Your task to perform on an android device: open app "Google Keep" (install if not already installed) Image 0: 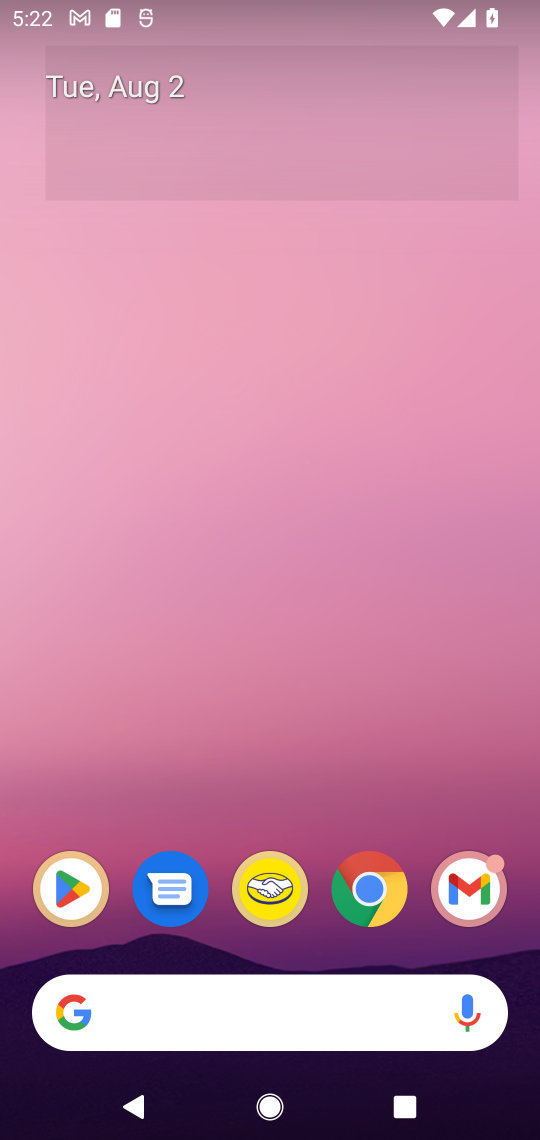
Step 0: press home button
Your task to perform on an android device: open app "Google Keep" (install if not already installed) Image 1: 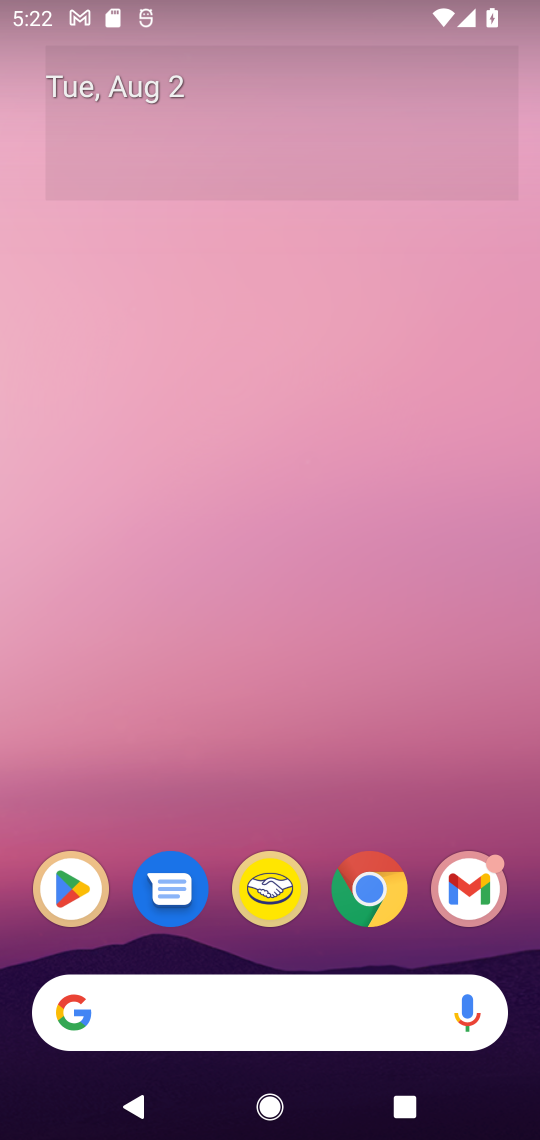
Step 1: drag from (335, 660) to (367, 115)
Your task to perform on an android device: open app "Google Keep" (install if not already installed) Image 2: 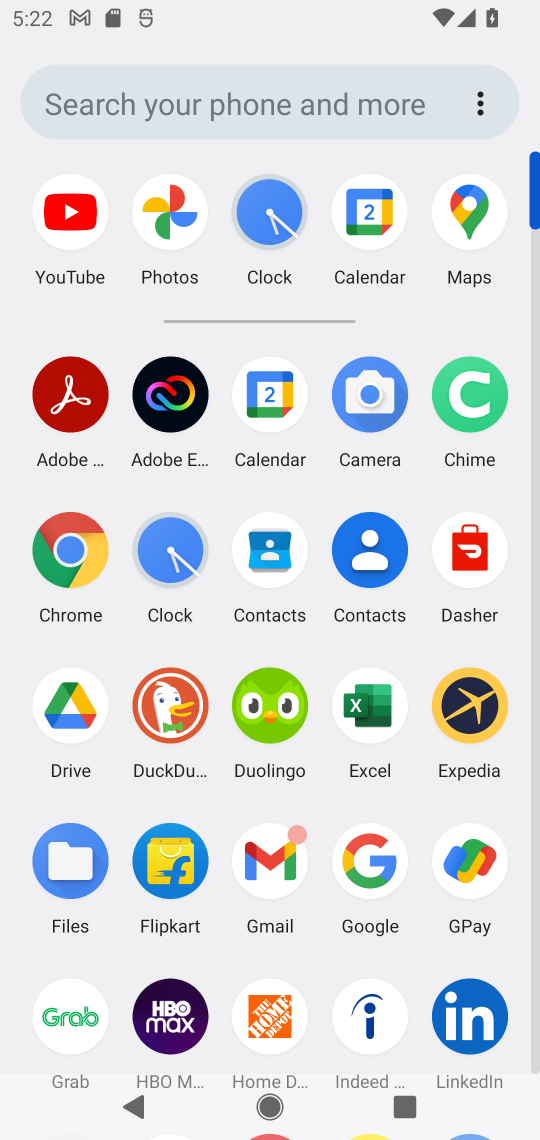
Step 2: drag from (487, 945) to (498, 406)
Your task to perform on an android device: open app "Google Keep" (install if not already installed) Image 3: 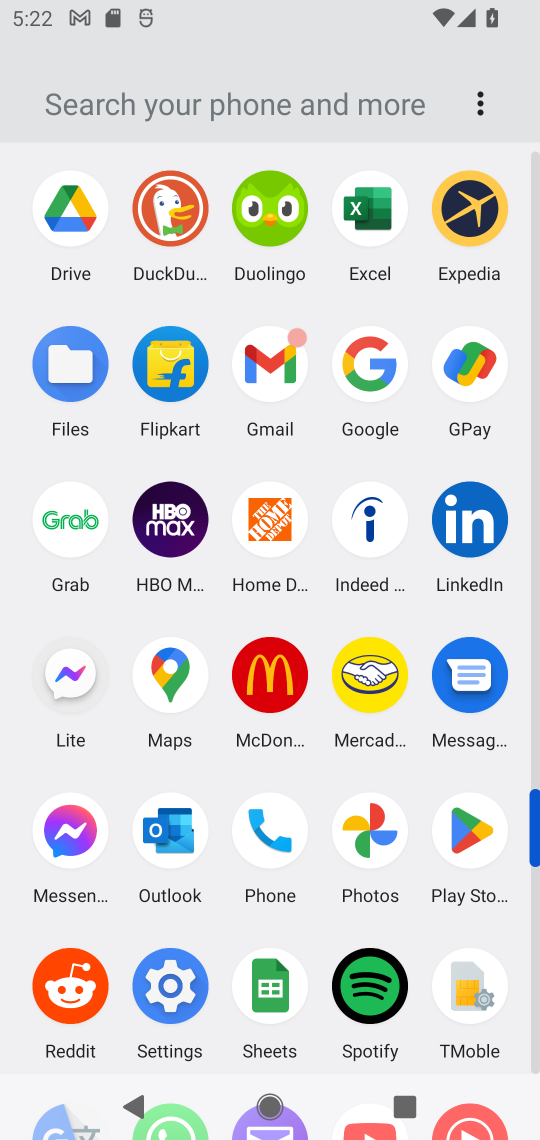
Step 3: click (463, 831)
Your task to perform on an android device: open app "Google Keep" (install if not already installed) Image 4: 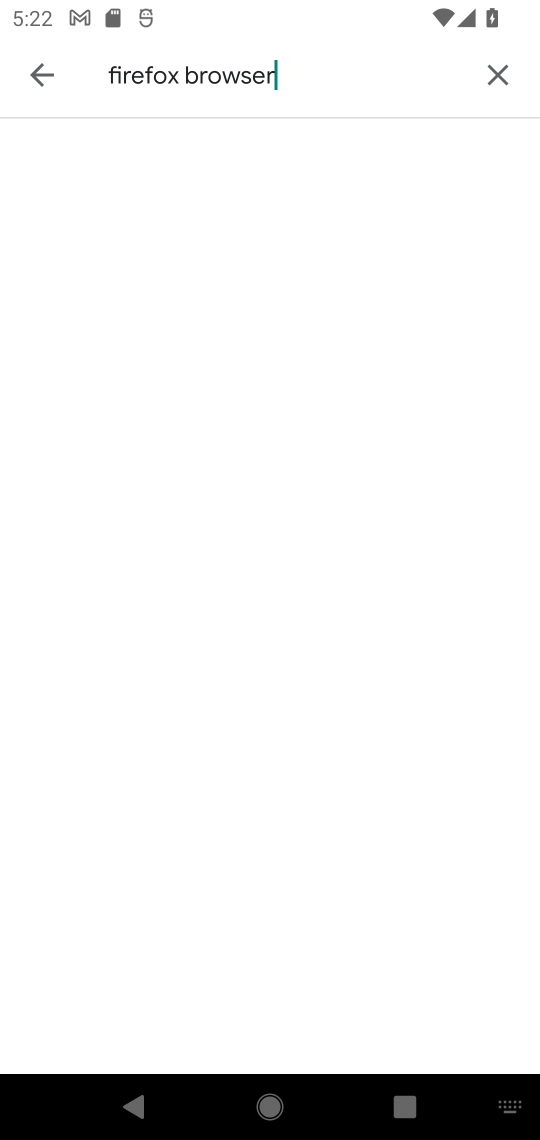
Step 4: click (503, 71)
Your task to perform on an android device: open app "Google Keep" (install if not already installed) Image 5: 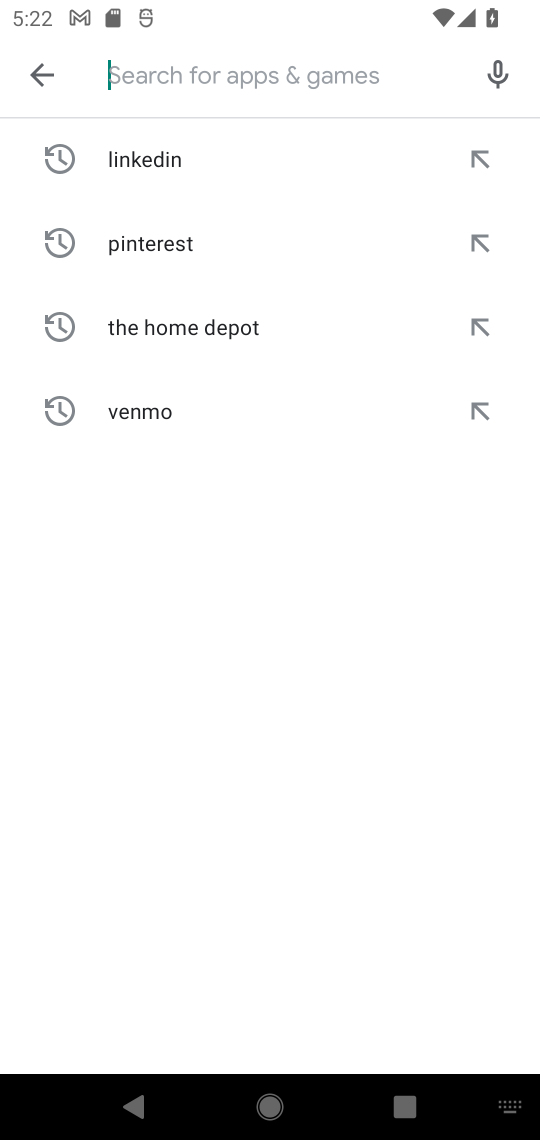
Step 5: click (379, 82)
Your task to perform on an android device: open app "Google Keep" (install if not already installed) Image 6: 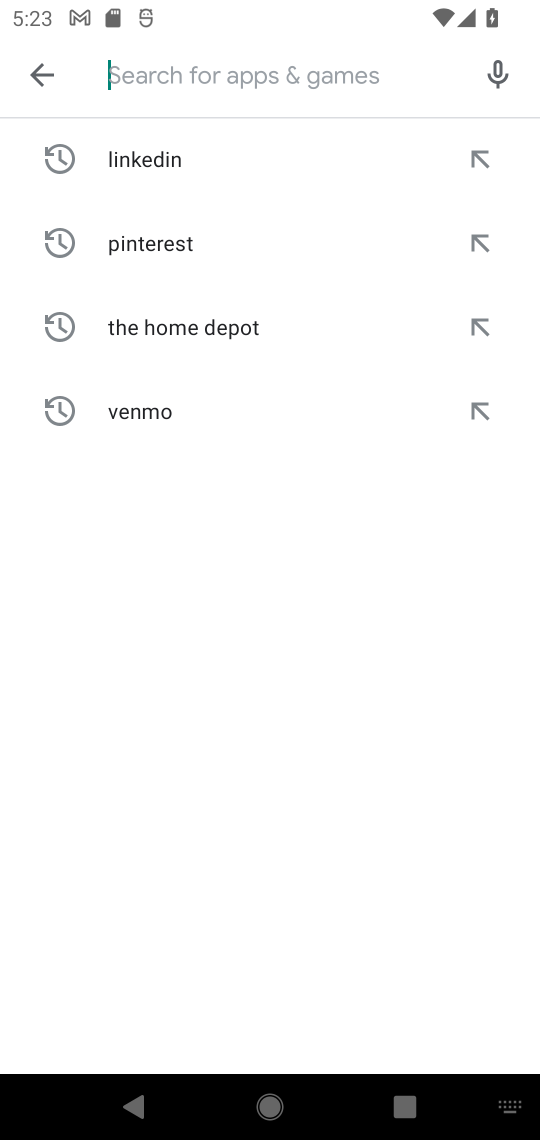
Step 6: type "google keep "
Your task to perform on an android device: open app "Google Keep" (install if not already installed) Image 7: 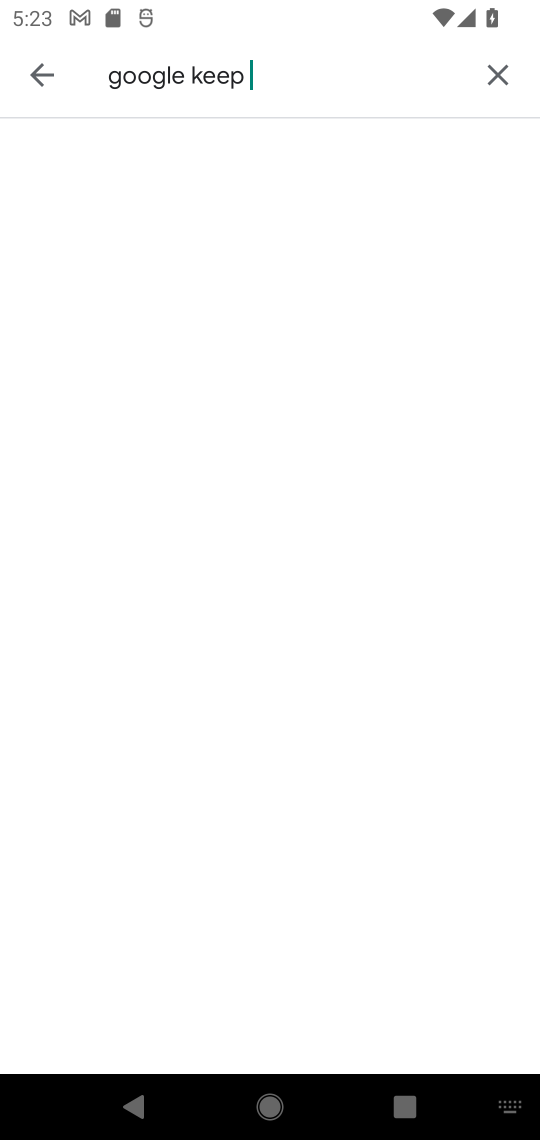
Step 7: task complete